Your task to perform on an android device: allow notifications from all sites in the chrome app Image 0: 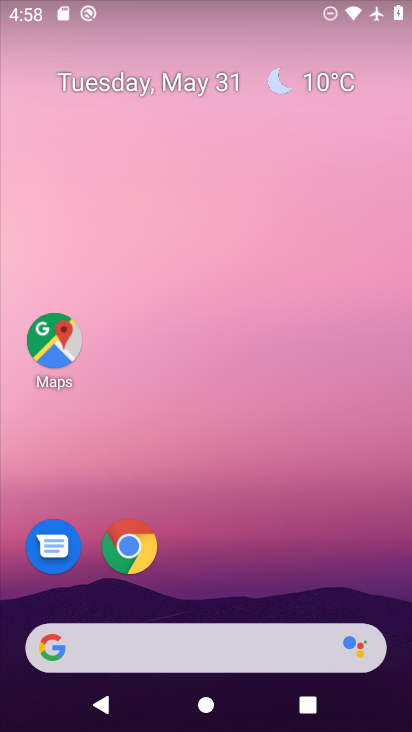
Step 0: drag from (279, 476) to (212, 23)
Your task to perform on an android device: allow notifications from all sites in the chrome app Image 1: 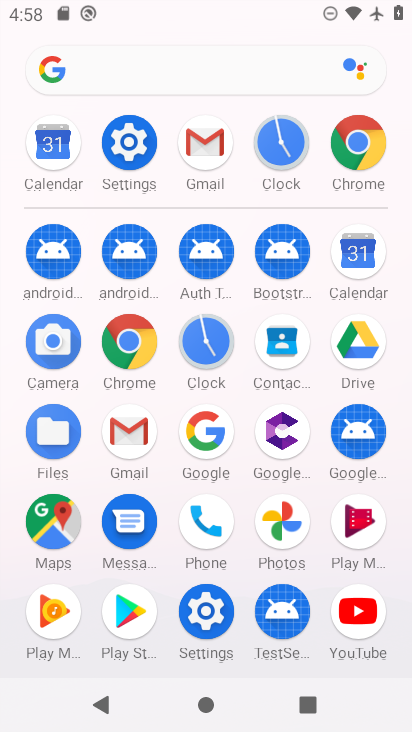
Step 1: click (358, 146)
Your task to perform on an android device: allow notifications from all sites in the chrome app Image 2: 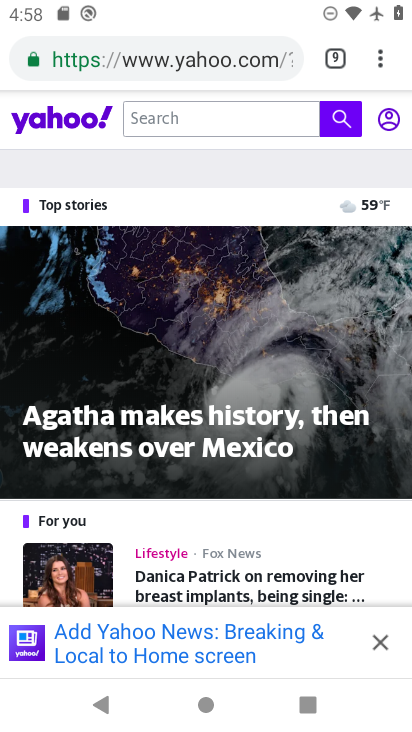
Step 2: click (384, 51)
Your task to perform on an android device: allow notifications from all sites in the chrome app Image 3: 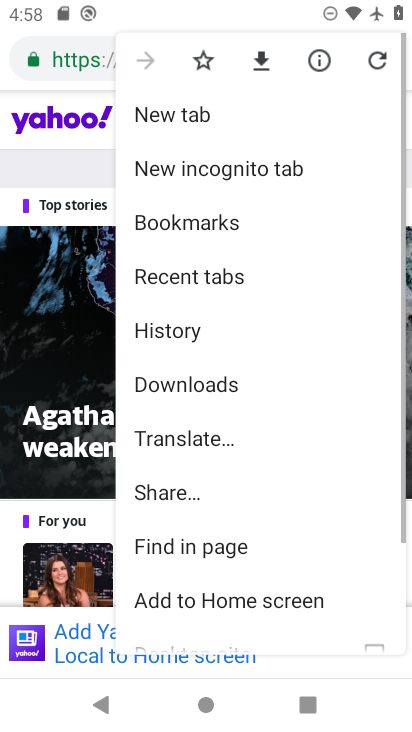
Step 3: drag from (273, 486) to (253, 97)
Your task to perform on an android device: allow notifications from all sites in the chrome app Image 4: 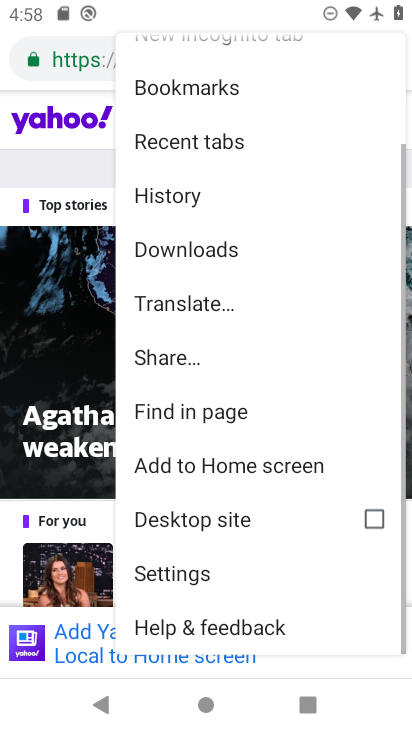
Step 4: click (229, 577)
Your task to perform on an android device: allow notifications from all sites in the chrome app Image 5: 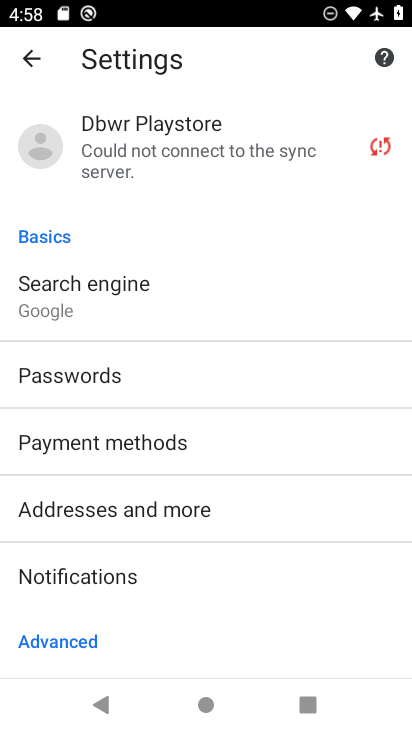
Step 5: drag from (196, 533) to (157, 1)
Your task to perform on an android device: allow notifications from all sites in the chrome app Image 6: 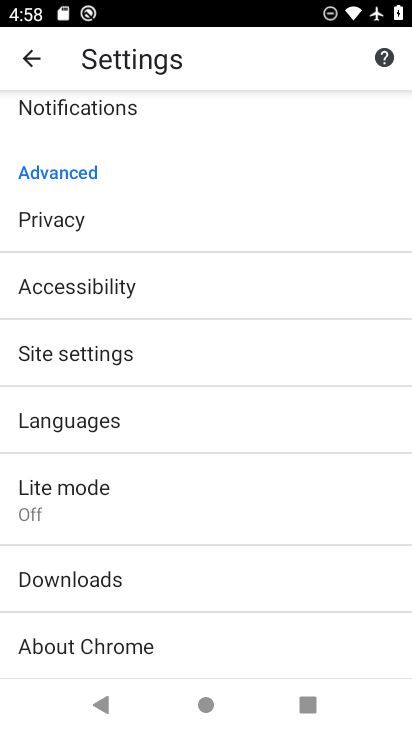
Step 6: click (142, 360)
Your task to perform on an android device: allow notifications from all sites in the chrome app Image 7: 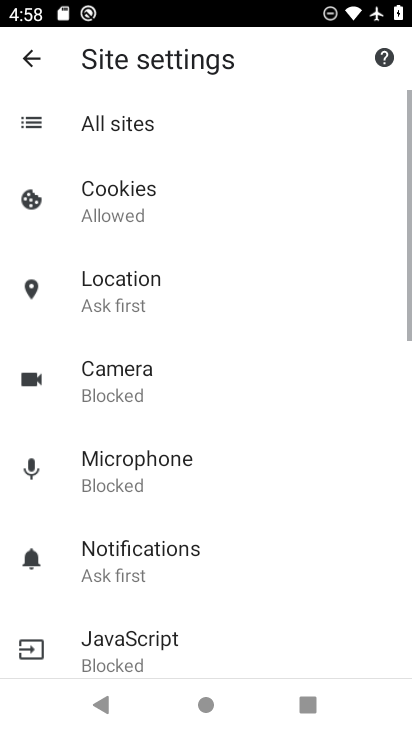
Step 7: click (88, 120)
Your task to perform on an android device: allow notifications from all sites in the chrome app Image 8: 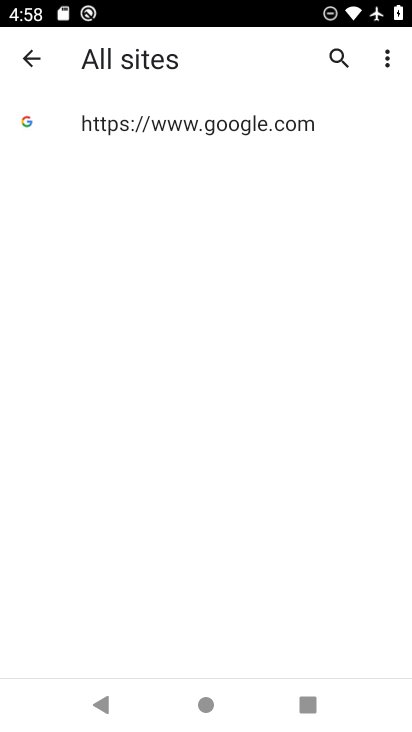
Step 8: click (175, 130)
Your task to perform on an android device: allow notifications from all sites in the chrome app Image 9: 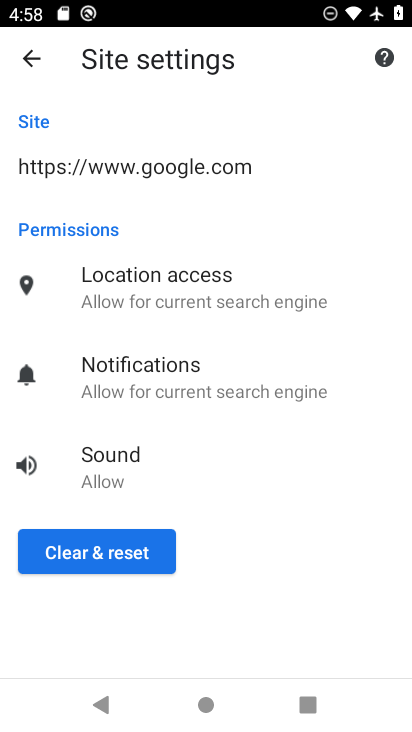
Step 9: click (272, 349)
Your task to perform on an android device: allow notifications from all sites in the chrome app Image 10: 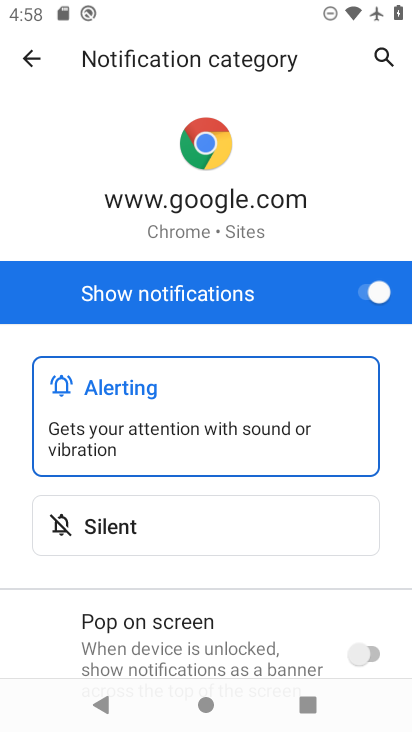
Step 10: task complete